Your task to perform on an android device: Open Wikipedia Image 0: 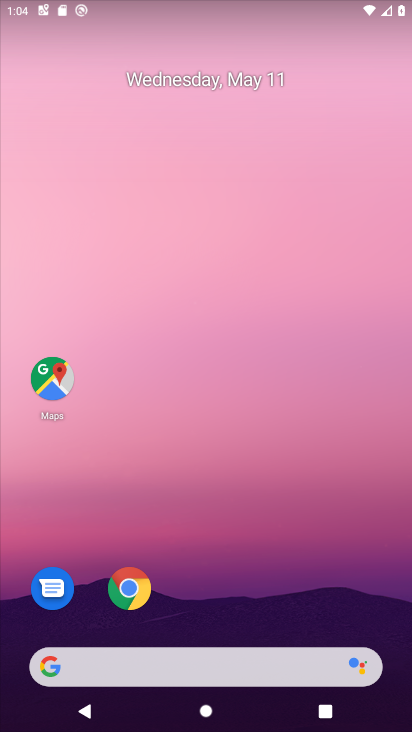
Step 0: click (131, 586)
Your task to perform on an android device: Open Wikipedia Image 1: 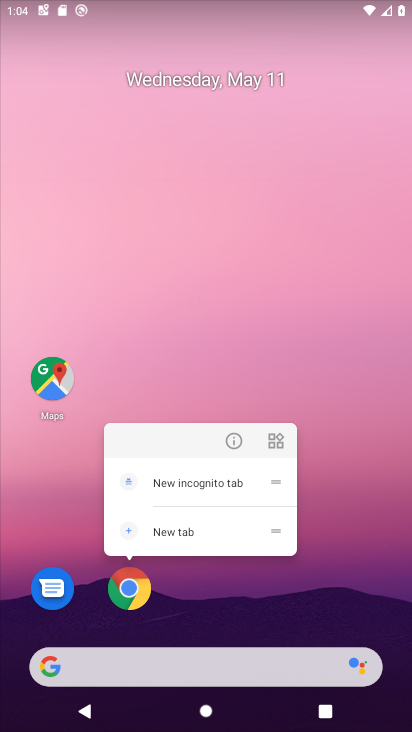
Step 1: click (131, 596)
Your task to perform on an android device: Open Wikipedia Image 2: 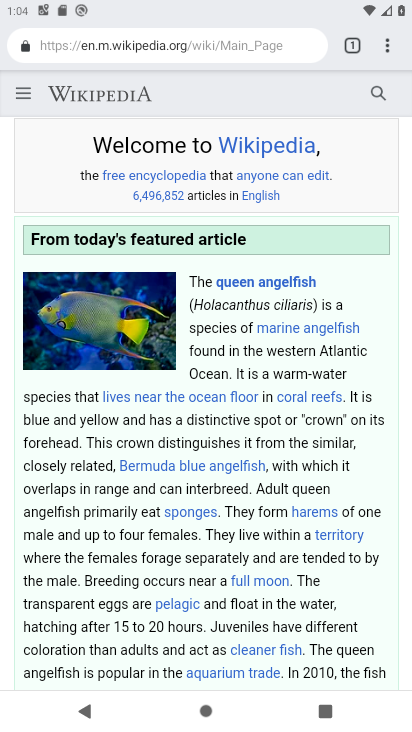
Step 2: task complete